Your task to perform on an android device: Go to Reddit.com Image 0: 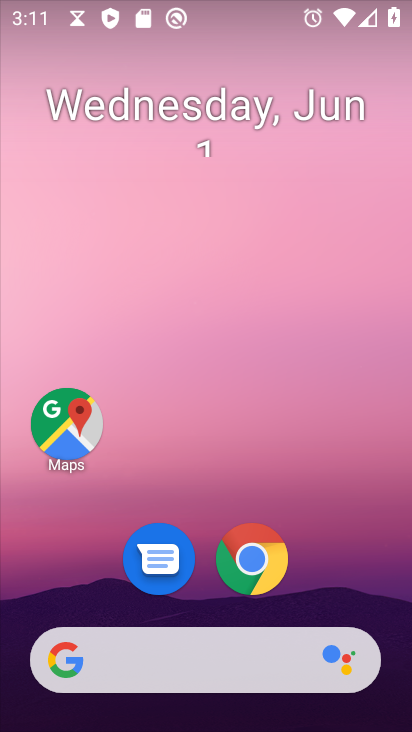
Step 0: click (255, 567)
Your task to perform on an android device: Go to Reddit.com Image 1: 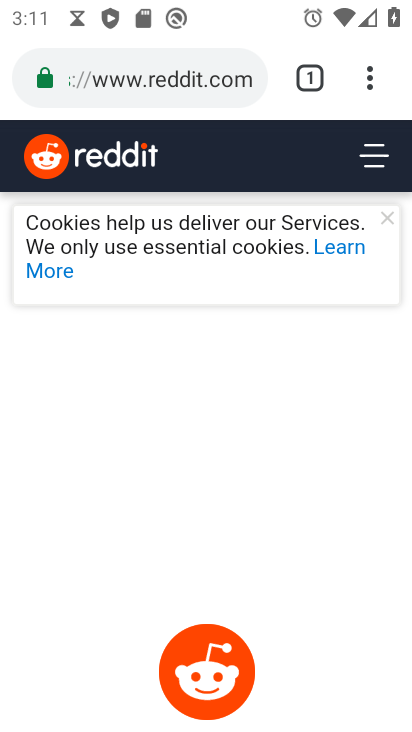
Step 1: task complete